Your task to perform on an android device: all mails in gmail Image 0: 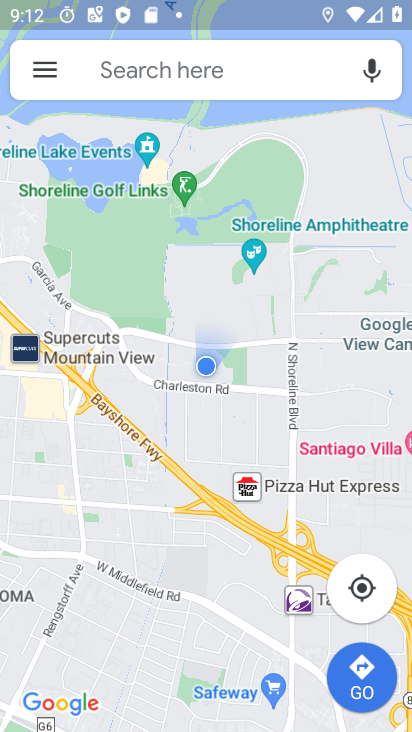
Step 0: press home button
Your task to perform on an android device: all mails in gmail Image 1: 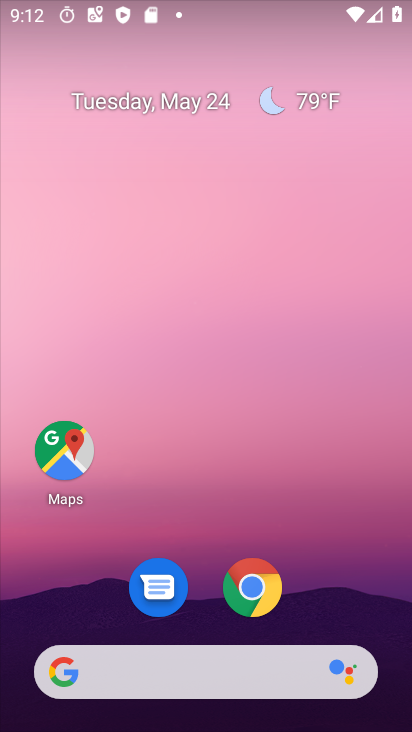
Step 1: drag from (341, 580) to (303, 183)
Your task to perform on an android device: all mails in gmail Image 2: 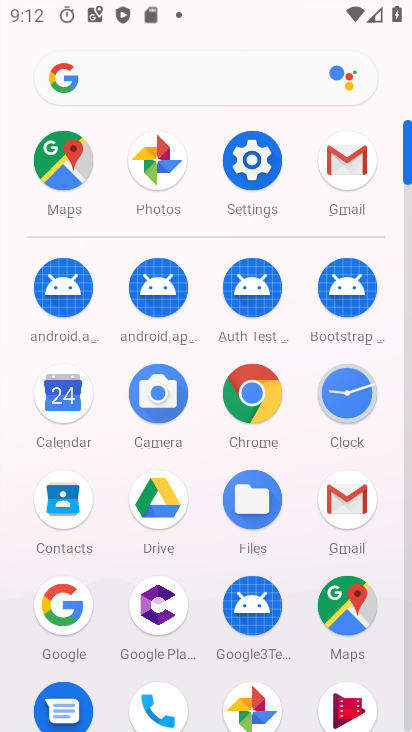
Step 2: click (347, 159)
Your task to perform on an android device: all mails in gmail Image 3: 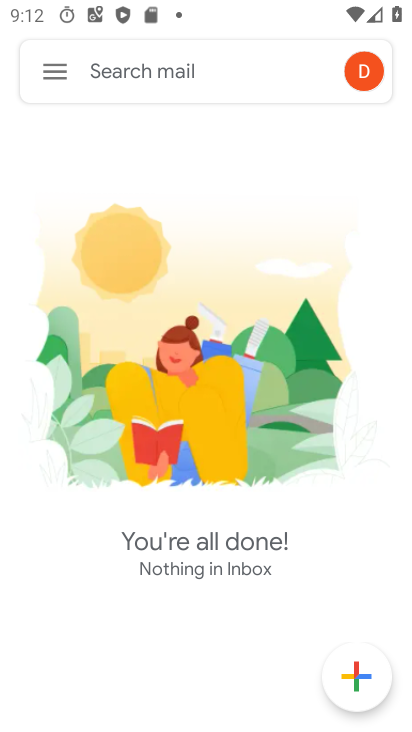
Step 3: click (56, 73)
Your task to perform on an android device: all mails in gmail Image 4: 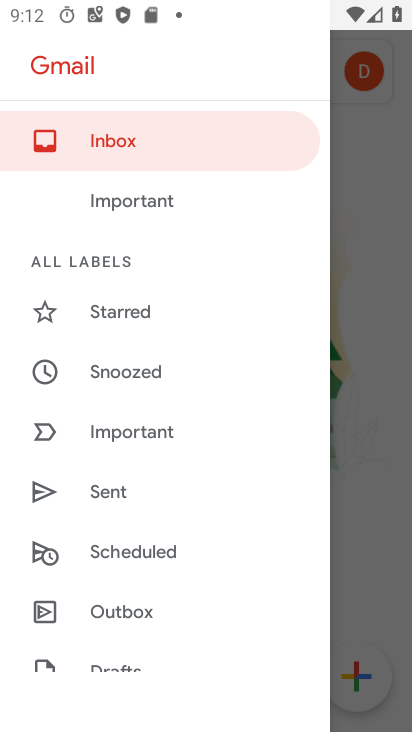
Step 4: drag from (130, 321) to (124, 281)
Your task to perform on an android device: all mails in gmail Image 5: 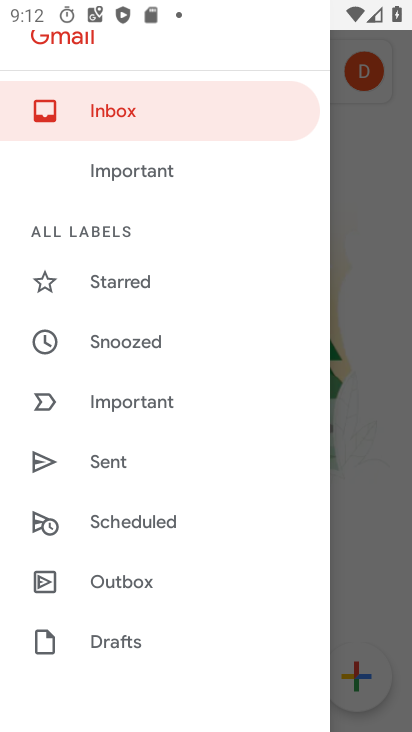
Step 5: drag from (129, 424) to (162, 355)
Your task to perform on an android device: all mails in gmail Image 6: 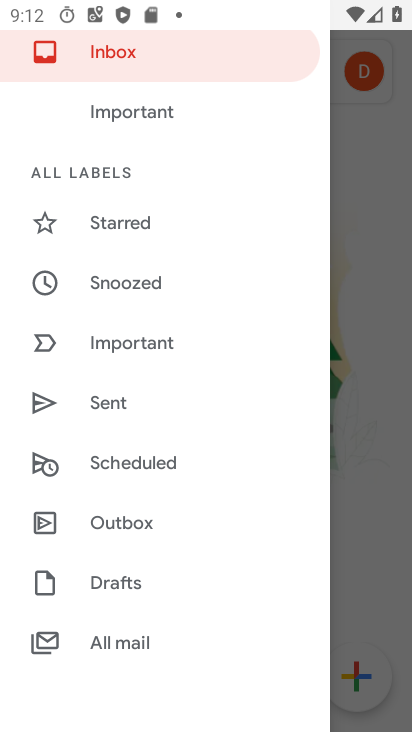
Step 6: drag from (128, 421) to (186, 352)
Your task to perform on an android device: all mails in gmail Image 7: 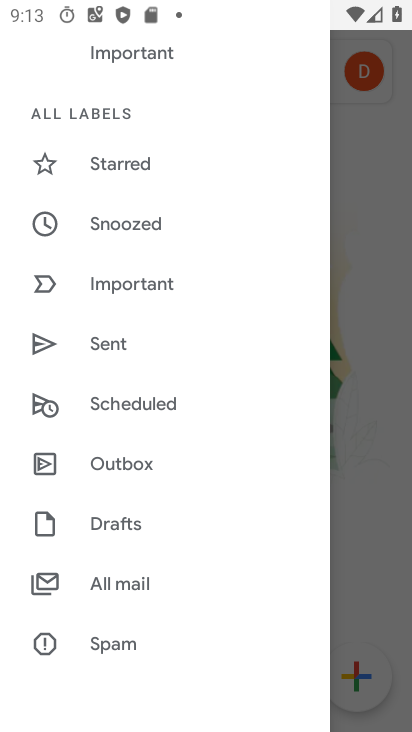
Step 7: drag from (114, 487) to (173, 403)
Your task to perform on an android device: all mails in gmail Image 8: 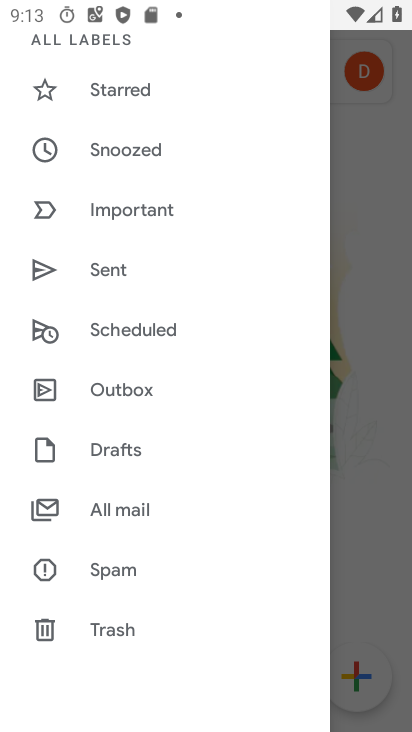
Step 8: click (138, 511)
Your task to perform on an android device: all mails in gmail Image 9: 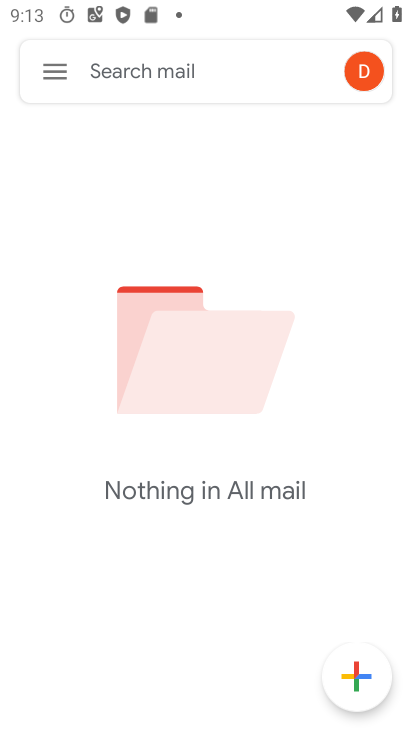
Step 9: task complete